Your task to perform on an android device: Show me the alarms in the clock app Image 0: 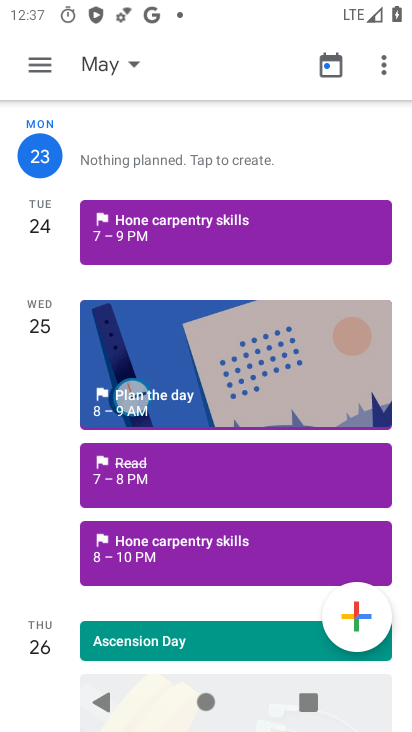
Step 0: drag from (344, 573) to (226, 100)
Your task to perform on an android device: Show me the alarms in the clock app Image 1: 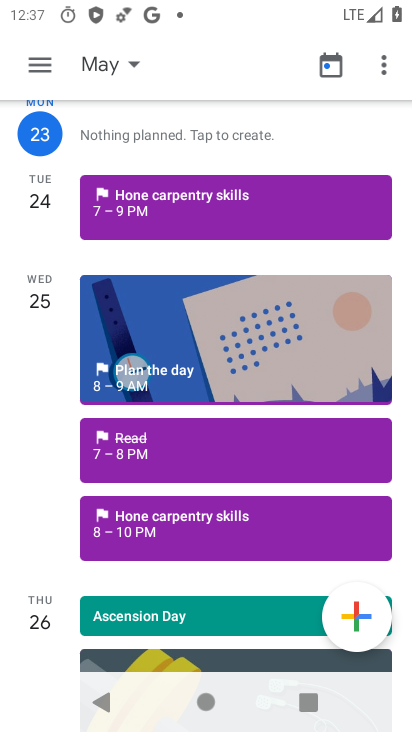
Step 1: press back button
Your task to perform on an android device: Show me the alarms in the clock app Image 2: 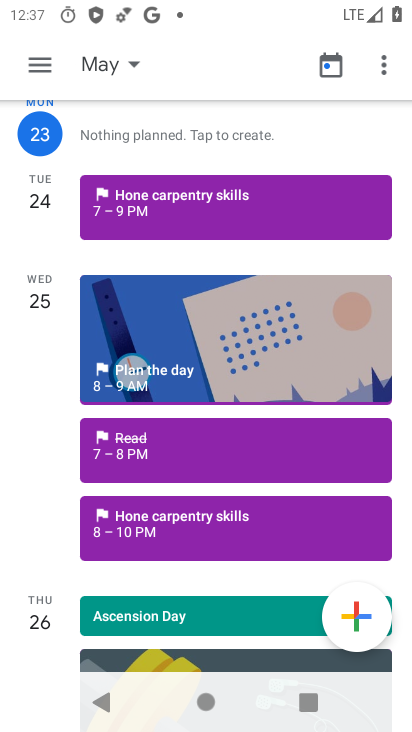
Step 2: press back button
Your task to perform on an android device: Show me the alarms in the clock app Image 3: 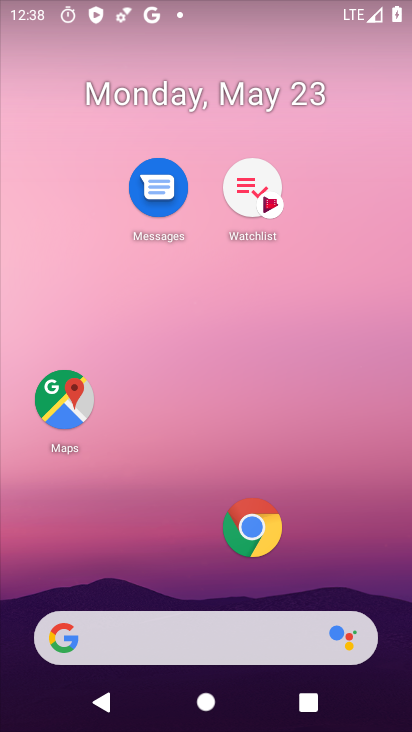
Step 3: drag from (263, 650) to (141, 179)
Your task to perform on an android device: Show me the alarms in the clock app Image 4: 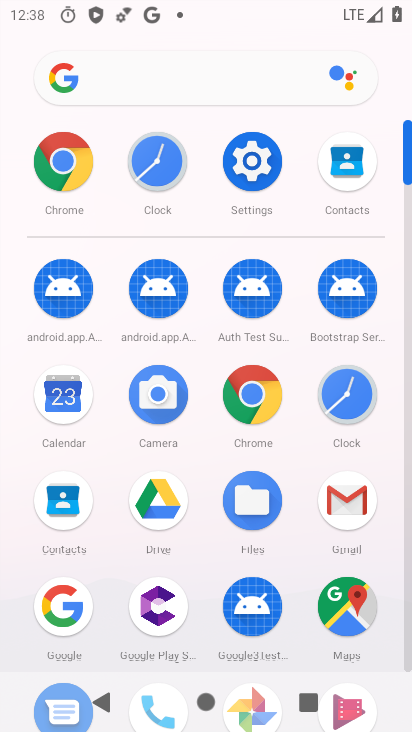
Step 4: click (328, 378)
Your task to perform on an android device: Show me the alarms in the clock app Image 5: 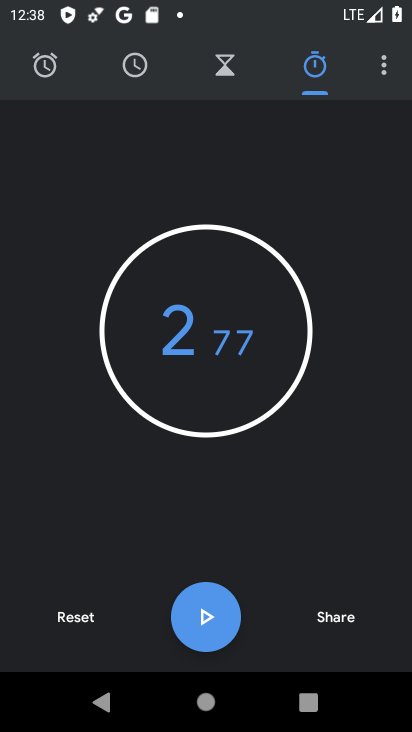
Step 5: click (42, 68)
Your task to perform on an android device: Show me the alarms in the clock app Image 6: 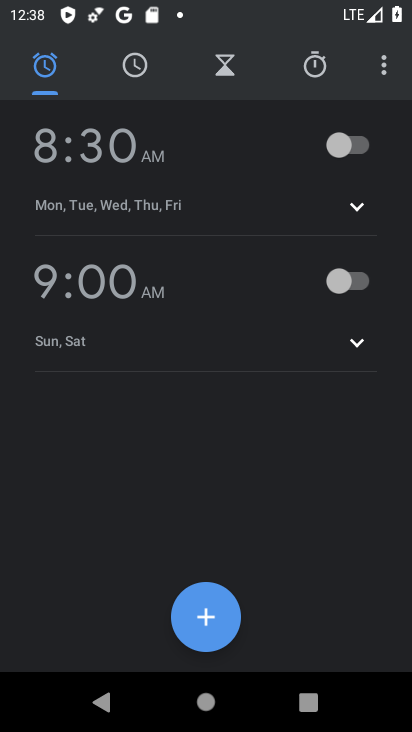
Step 6: task complete